Your task to perform on an android device: visit the assistant section in the google photos Image 0: 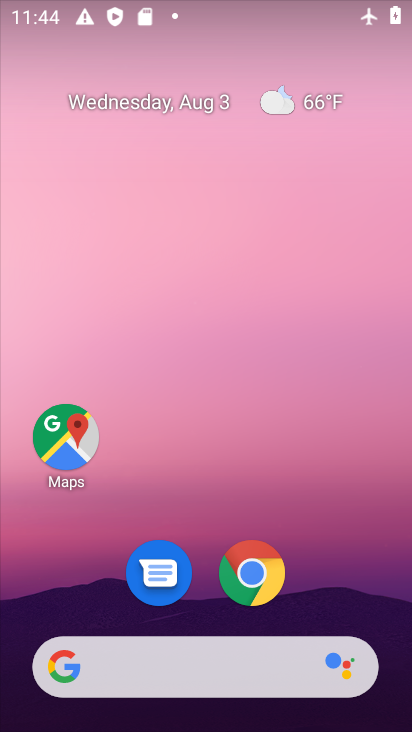
Step 0: drag from (338, 581) to (310, 78)
Your task to perform on an android device: visit the assistant section in the google photos Image 1: 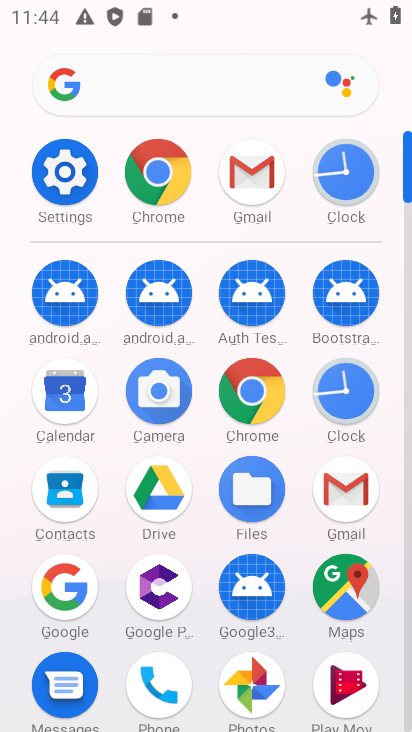
Step 1: click (246, 692)
Your task to perform on an android device: visit the assistant section in the google photos Image 2: 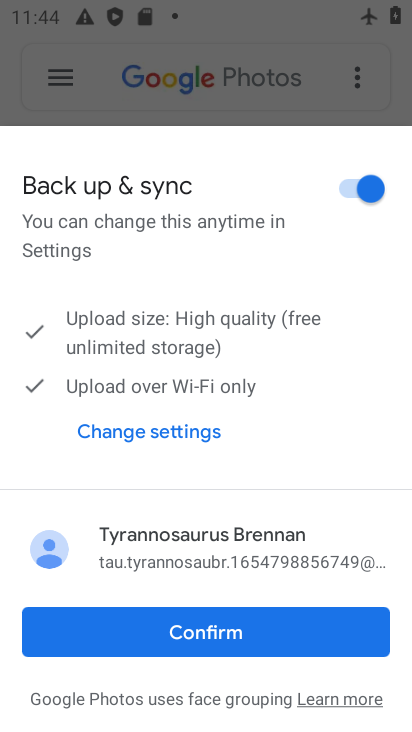
Step 2: click (242, 644)
Your task to perform on an android device: visit the assistant section in the google photos Image 3: 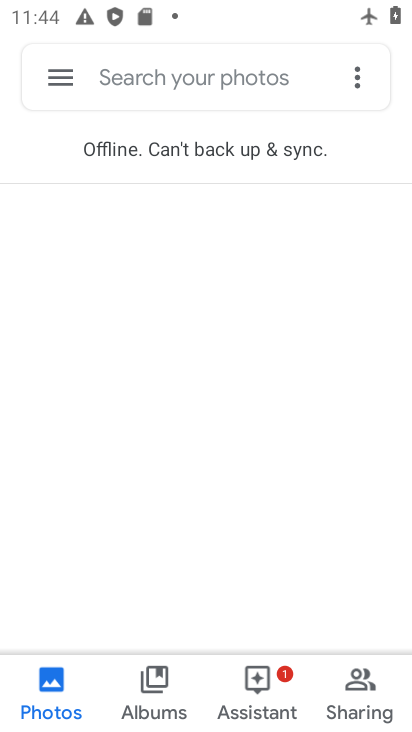
Step 3: click (270, 693)
Your task to perform on an android device: visit the assistant section in the google photos Image 4: 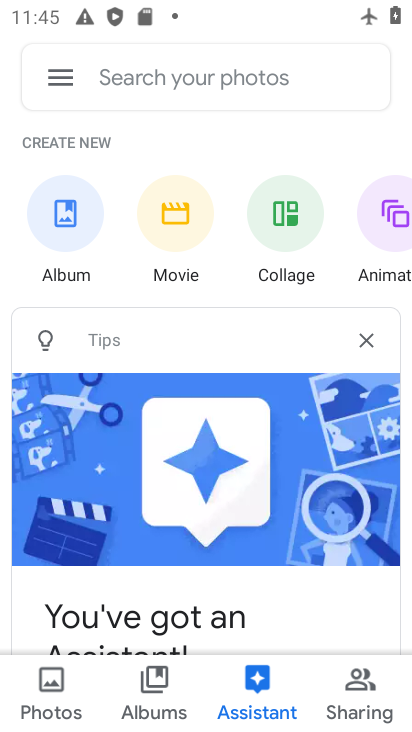
Step 4: task complete